Your task to perform on an android device: refresh tabs in the chrome app Image 0: 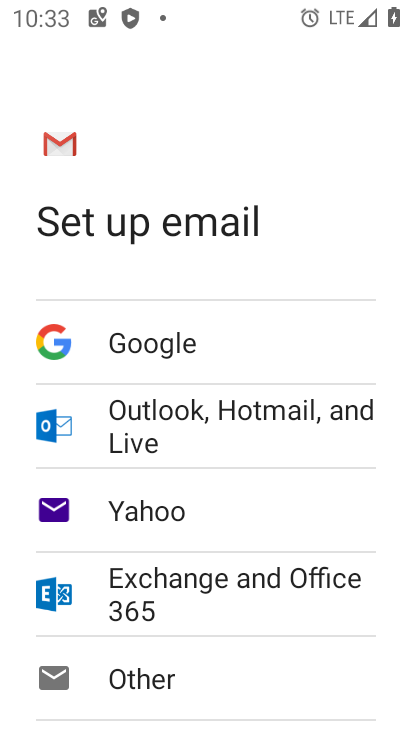
Step 0: press home button
Your task to perform on an android device: refresh tabs in the chrome app Image 1: 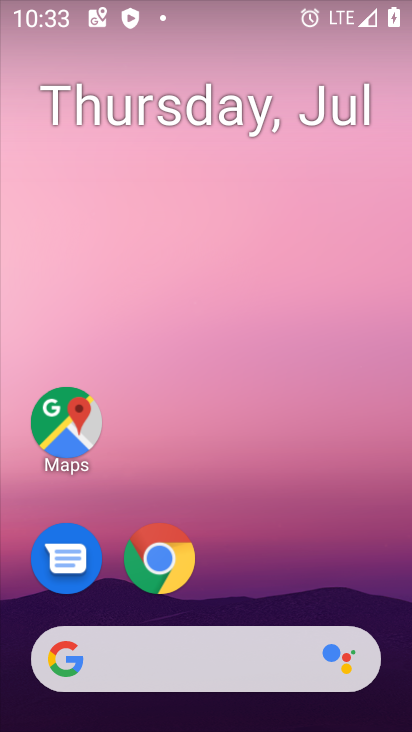
Step 1: drag from (348, 572) to (370, 74)
Your task to perform on an android device: refresh tabs in the chrome app Image 2: 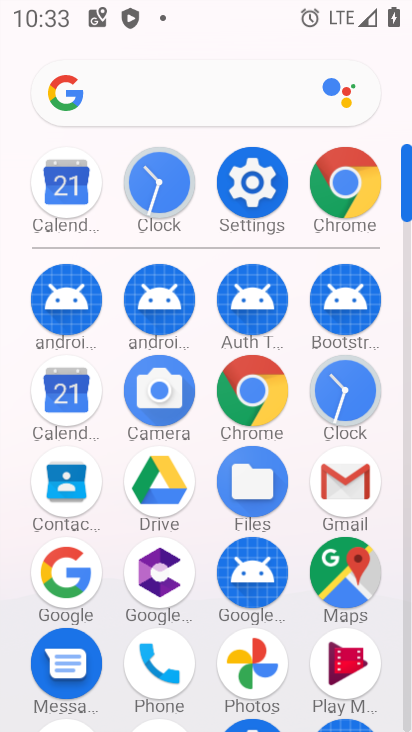
Step 2: click (252, 395)
Your task to perform on an android device: refresh tabs in the chrome app Image 3: 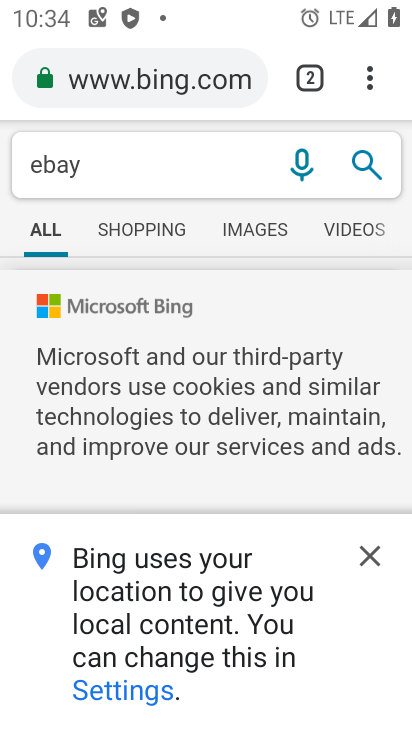
Step 3: click (372, 81)
Your task to perform on an android device: refresh tabs in the chrome app Image 4: 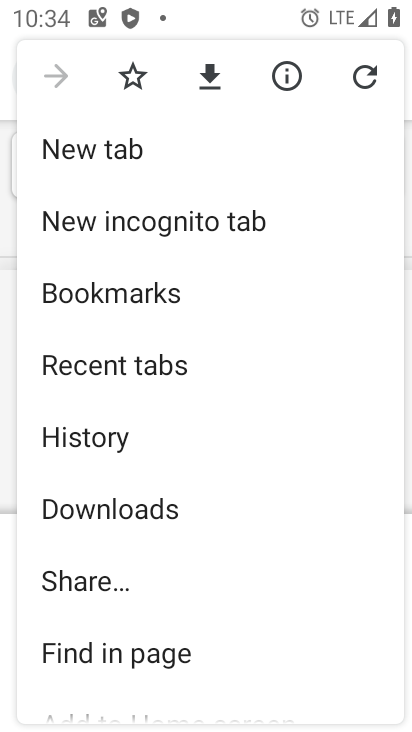
Step 4: click (371, 80)
Your task to perform on an android device: refresh tabs in the chrome app Image 5: 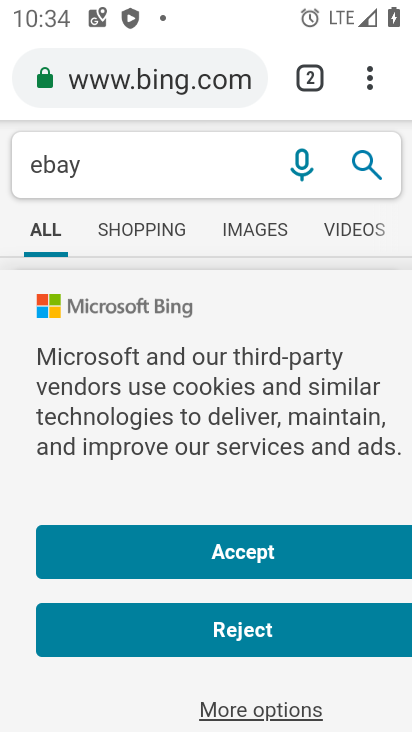
Step 5: task complete